Your task to perform on an android device: Open Amazon Image 0: 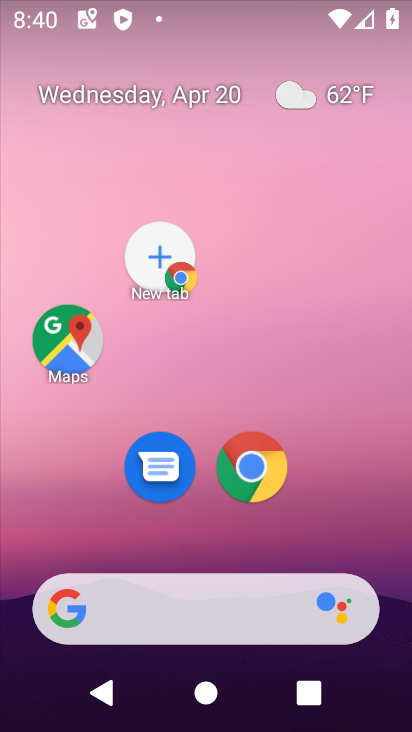
Step 0: drag from (261, 668) to (132, 113)
Your task to perform on an android device: Open Amazon Image 1: 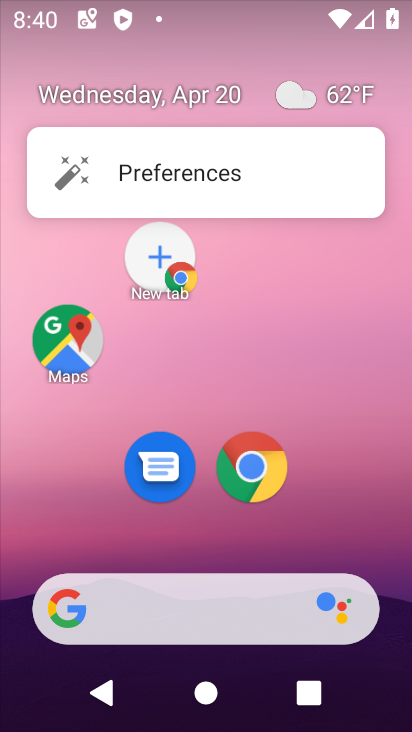
Step 1: click (263, 270)
Your task to perform on an android device: Open Amazon Image 2: 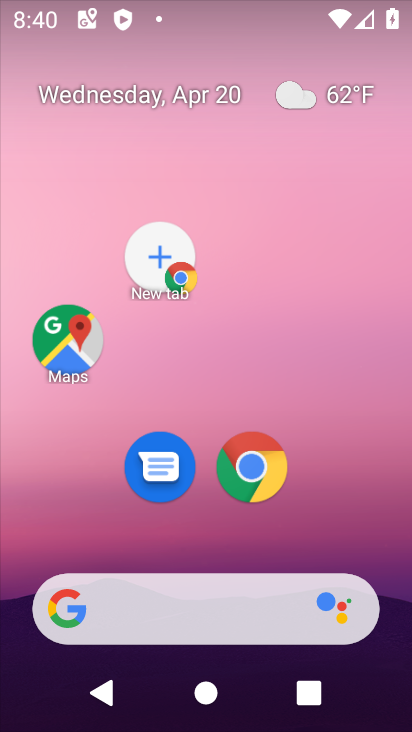
Step 2: click (263, 275)
Your task to perform on an android device: Open Amazon Image 3: 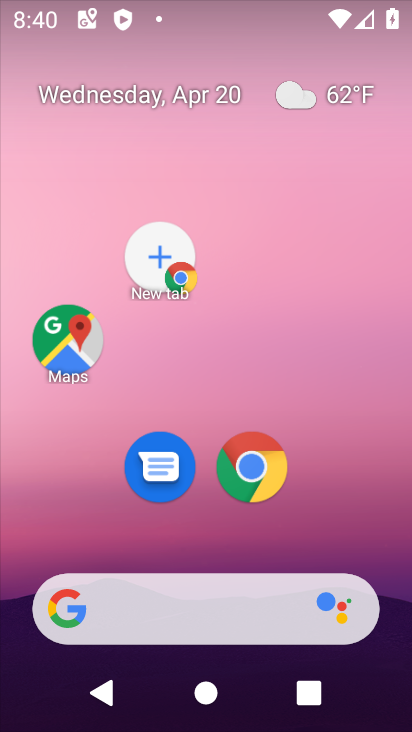
Step 3: drag from (380, 540) to (240, 234)
Your task to perform on an android device: Open Amazon Image 4: 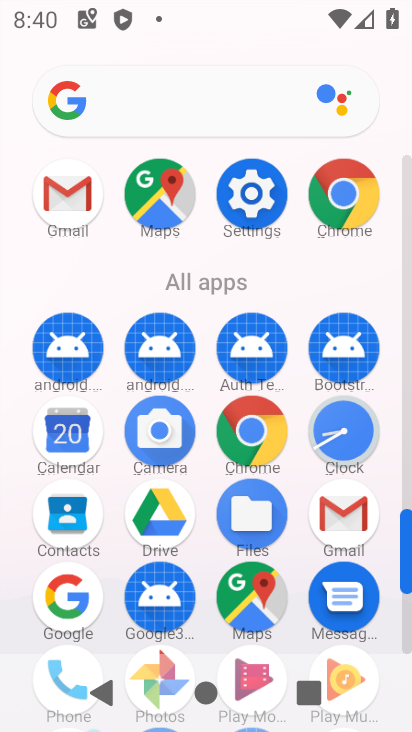
Step 4: click (335, 193)
Your task to perform on an android device: Open Amazon Image 5: 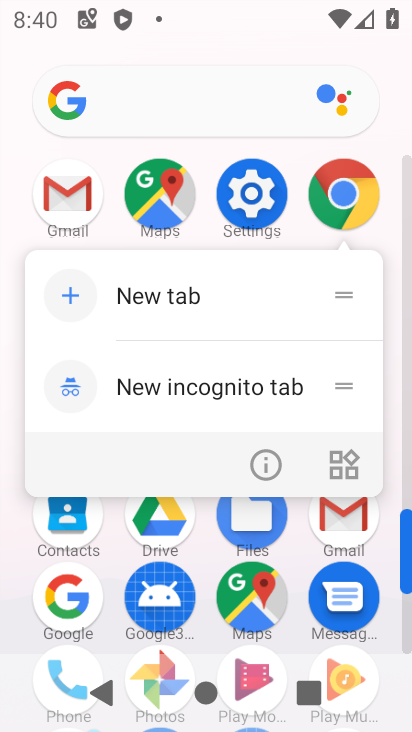
Step 5: click (133, 306)
Your task to perform on an android device: Open Amazon Image 6: 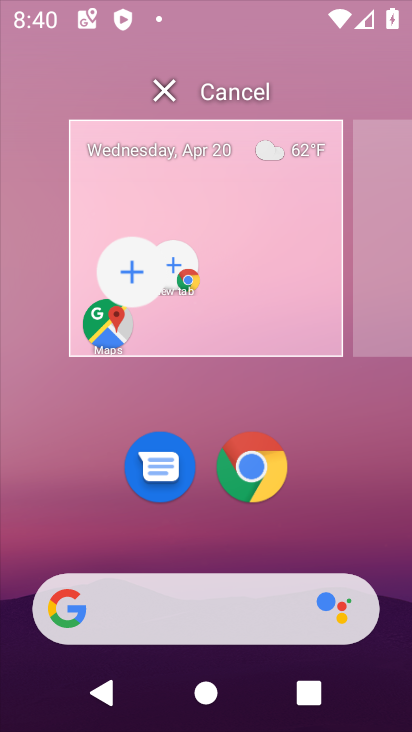
Step 6: click (136, 298)
Your task to perform on an android device: Open Amazon Image 7: 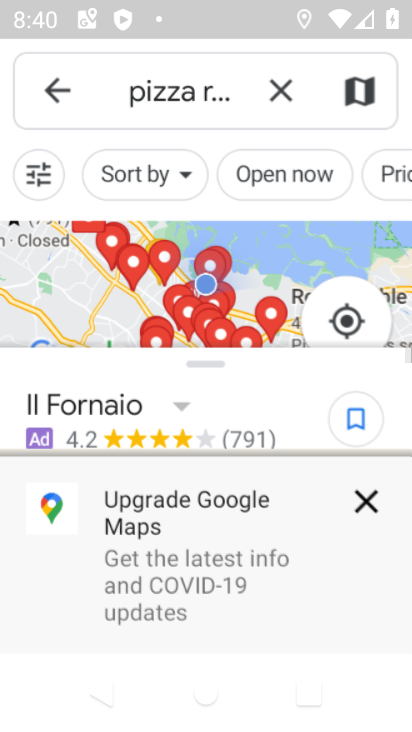
Step 7: click (53, 91)
Your task to perform on an android device: Open Amazon Image 8: 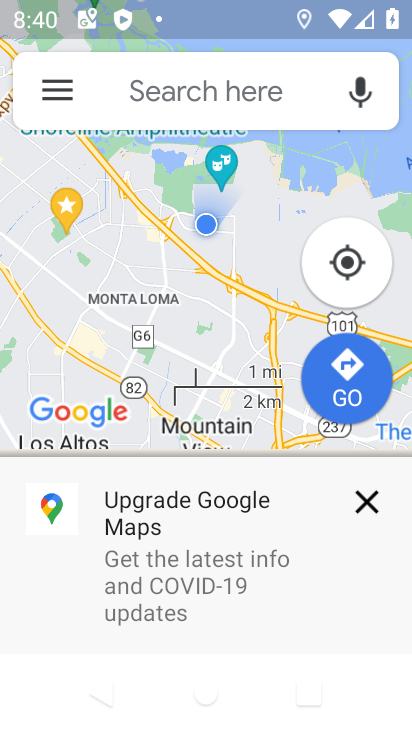
Step 8: press home button
Your task to perform on an android device: Open Amazon Image 9: 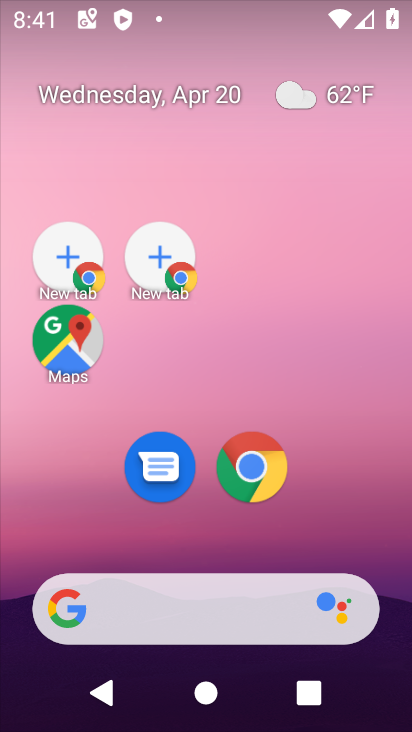
Step 9: drag from (273, 695) to (119, 164)
Your task to perform on an android device: Open Amazon Image 10: 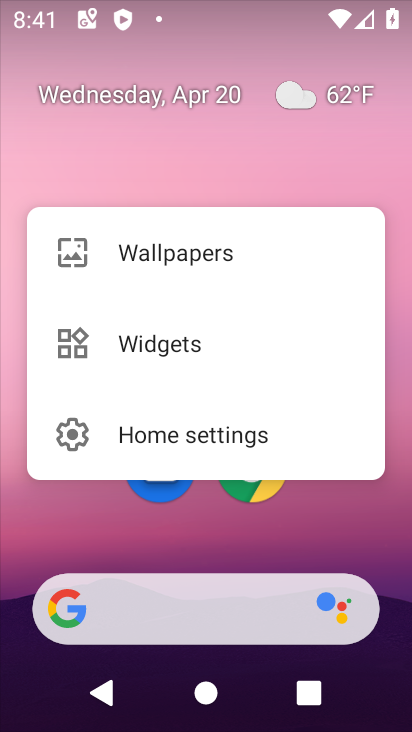
Step 10: drag from (309, 501) to (228, 6)
Your task to perform on an android device: Open Amazon Image 11: 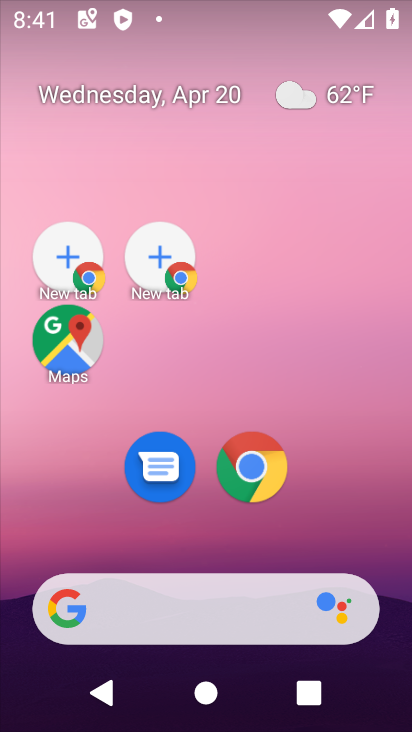
Step 11: drag from (246, 460) to (191, 19)
Your task to perform on an android device: Open Amazon Image 12: 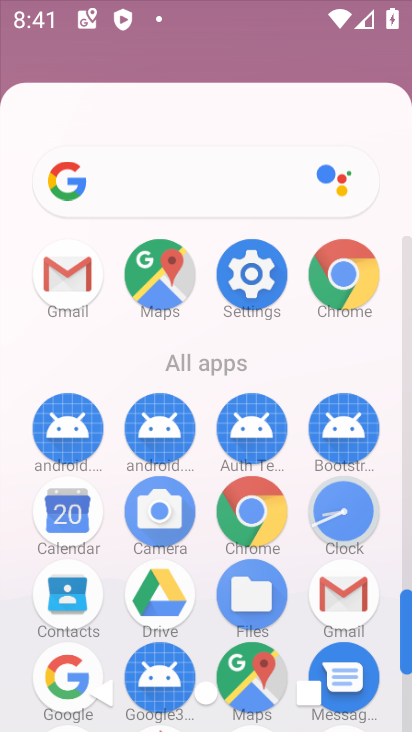
Step 12: drag from (293, 551) to (213, 175)
Your task to perform on an android device: Open Amazon Image 13: 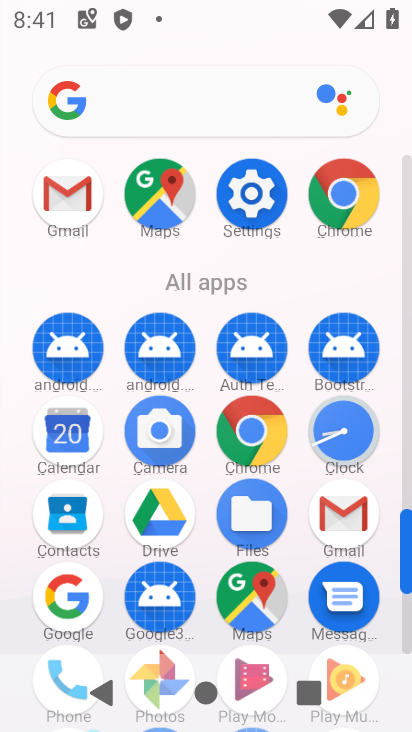
Step 13: click (255, 439)
Your task to perform on an android device: Open Amazon Image 14: 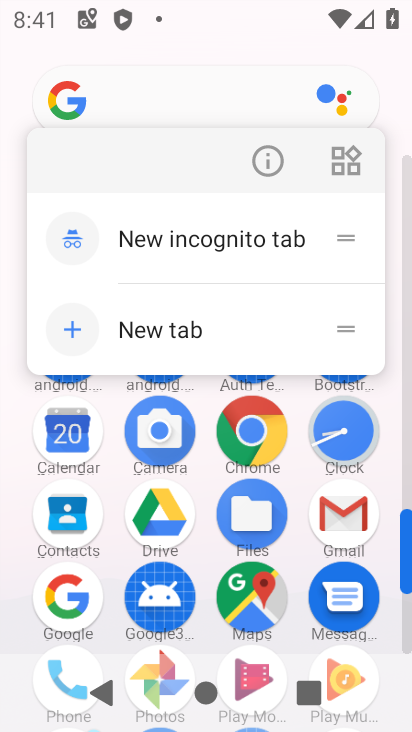
Step 14: click (256, 425)
Your task to perform on an android device: Open Amazon Image 15: 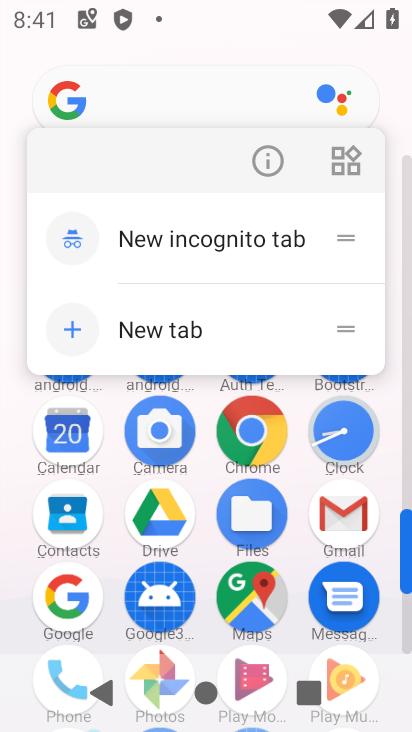
Step 15: click (259, 425)
Your task to perform on an android device: Open Amazon Image 16: 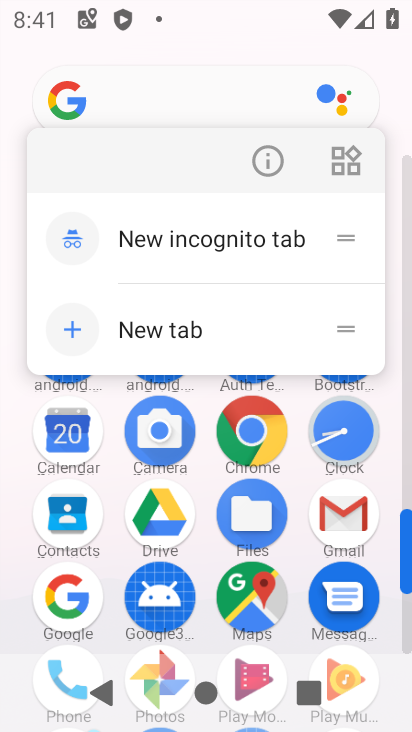
Step 16: click (253, 416)
Your task to perform on an android device: Open Amazon Image 17: 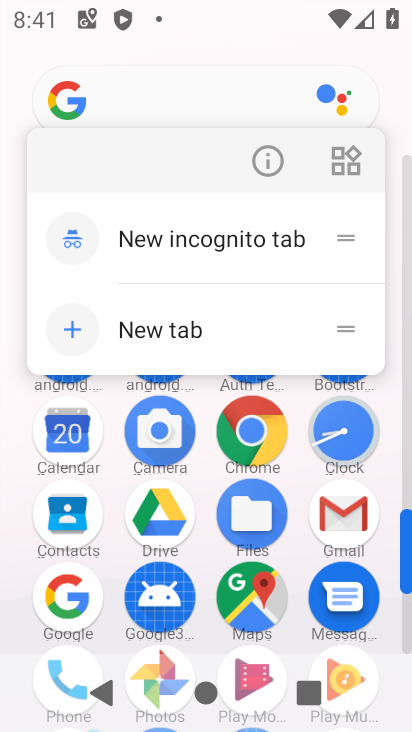
Step 17: click (253, 416)
Your task to perform on an android device: Open Amazon Image 18: 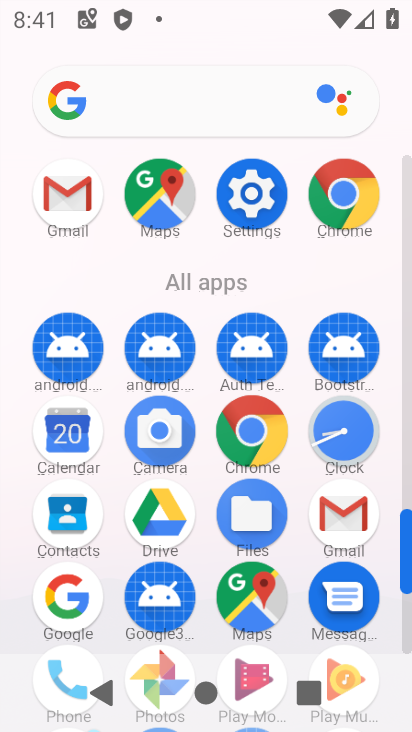
Step 18: click (256, 414)
Your task to perform on an android device: Open Amazon Image 19: 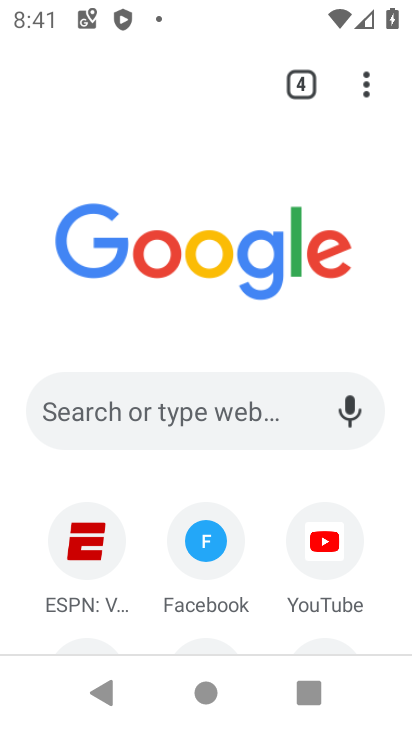
Step 19: drag from (274, 574) to (292, 262)
Your task to perform on an android device: Open Amazon Image 20: 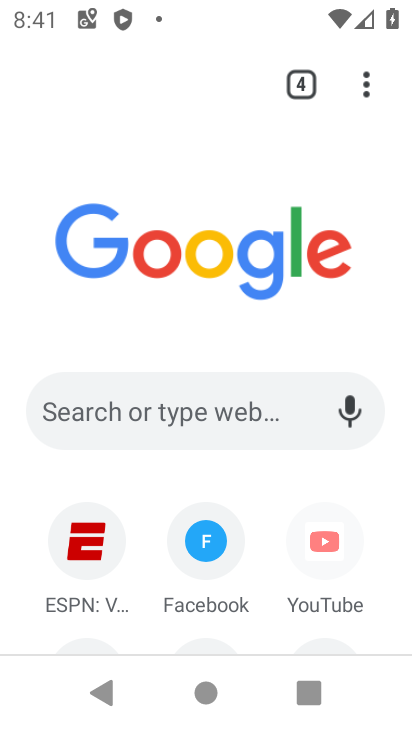
Step 20: drag from (244, 511) to (199, 138)
Your task to perform on an android device: Open Amazon Image 21: 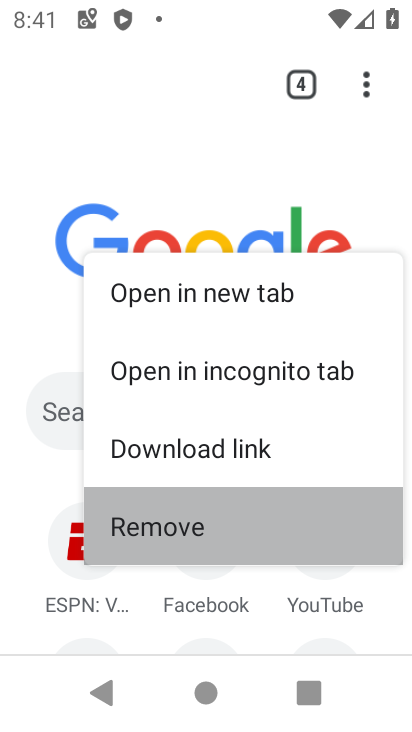
Step 21: drag from (261, 387) to (282, 155)
Your task to perform on an android device: Open Amazon Image 22: 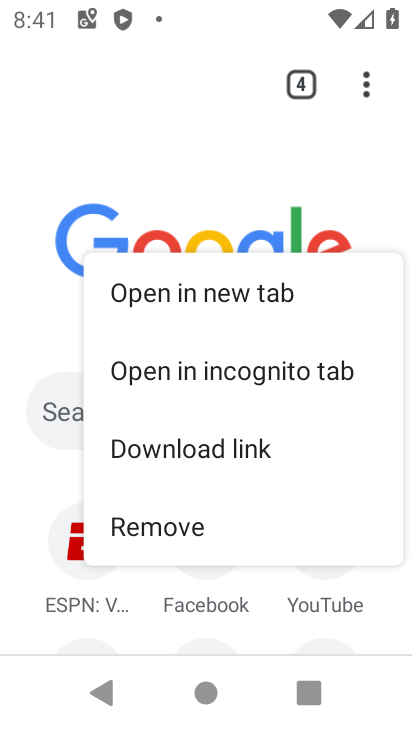
Step 22: click (150, 138)
Your task to perform on an android device: Open Amazon Image 23: 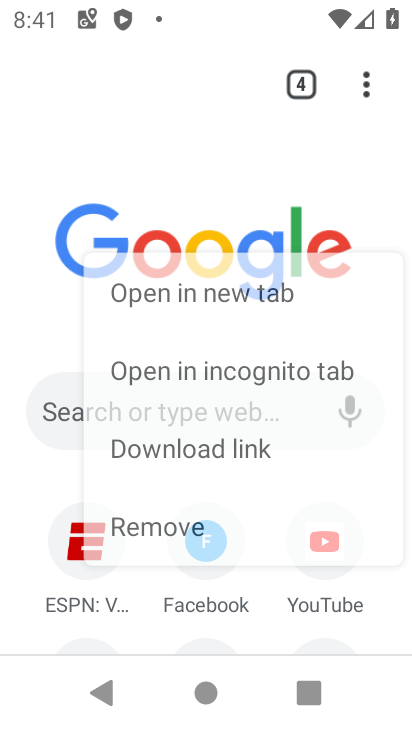
Step 23: click (150, 138)
Your task to perform on an android device: Open Amazon Image 24: 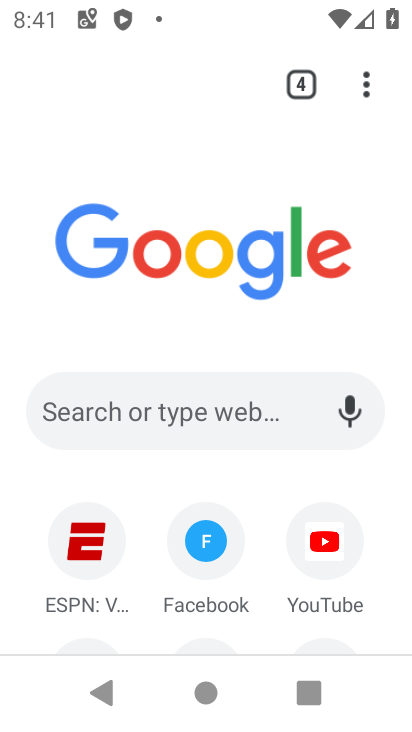
Step 24: drag from (273, 555) to (207, 205)
Your task to perform on an android device: Open Amazon Image 25: 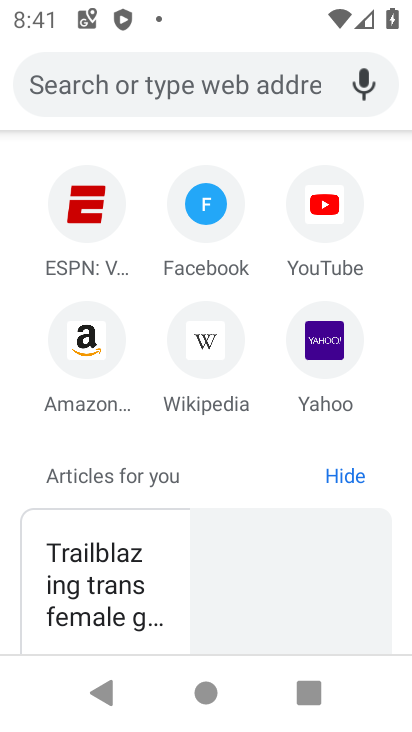
Step 25: drag from (243, 516) to (204, 178)
Your task to perform on an android device: Open Amazon Image 26: 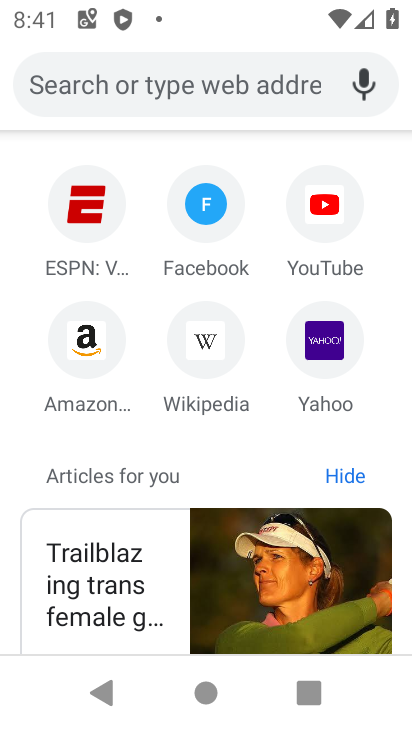
Step 26: click (88, 335)
Your task to perform on an android device: Open Amazon Image 27: 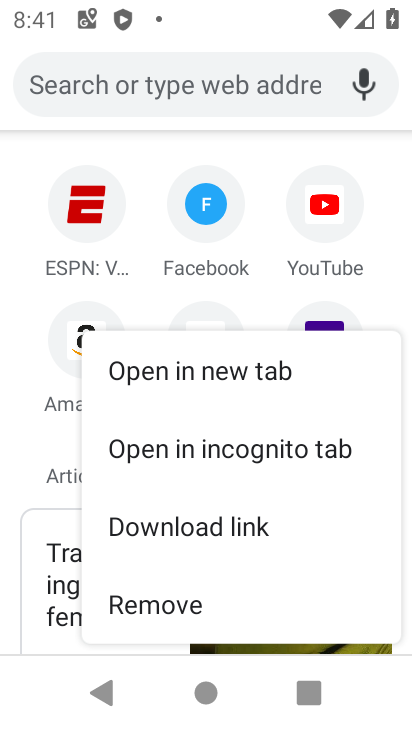
Step 27: click (92, 337)
Your task to perform on an android device: Open Amazon Image 28: 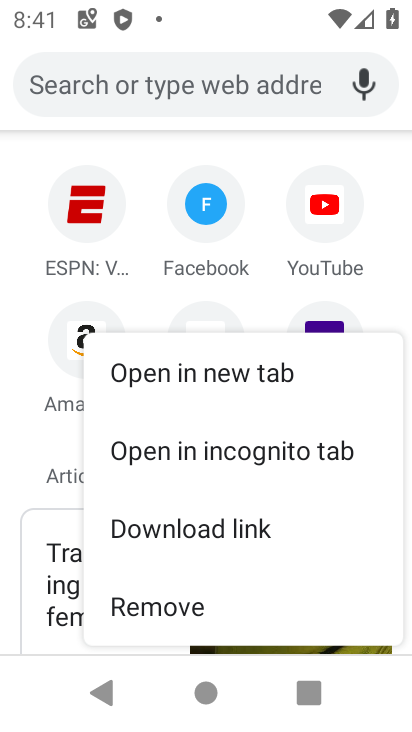
Step 28: click (92, 338)
Your task to perform on an android device: Open Amazon Image 29: 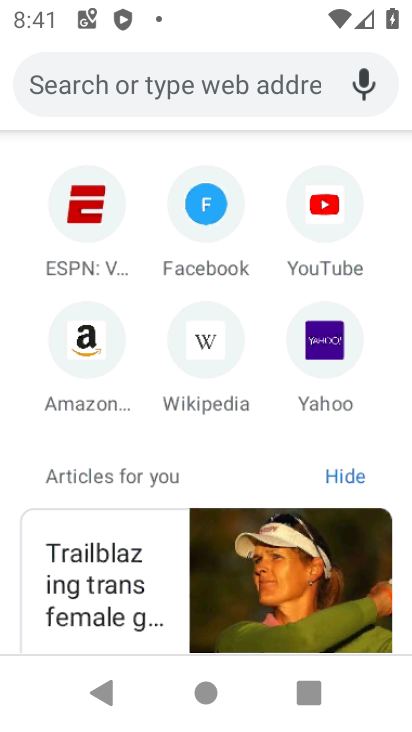
Step 29: click (94, 339)
Your task to perform on an android device: Open Amazon Image 30: 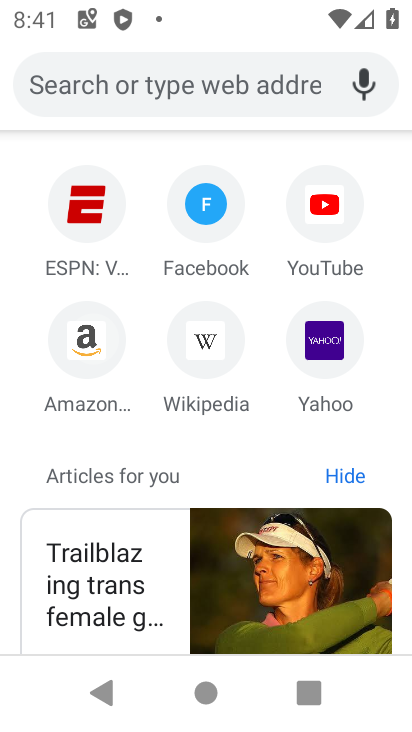
Step 30: click (94, 339)
Your task to perform on an android device: Open Amazon Image 31: 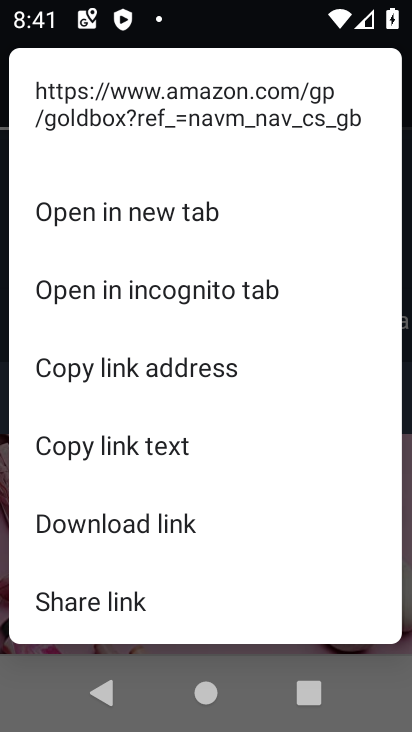
Step 31: task complete